Your task to perform on an android device: toggle javascript in the chrome app Image 0: 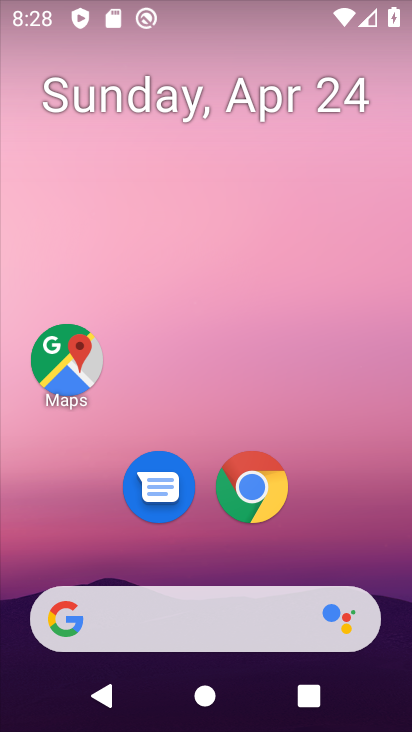
Step 0: click (239, 502)
Your task to perform on an android device: toggle javascript in the chrome app Image 1: 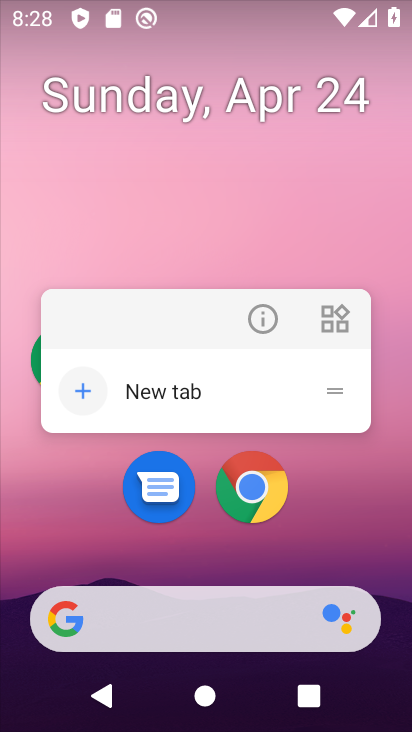
Step 1: click (256, 496)
Your task to perform on an android device: toggle javascript in the chrome app Image 2: 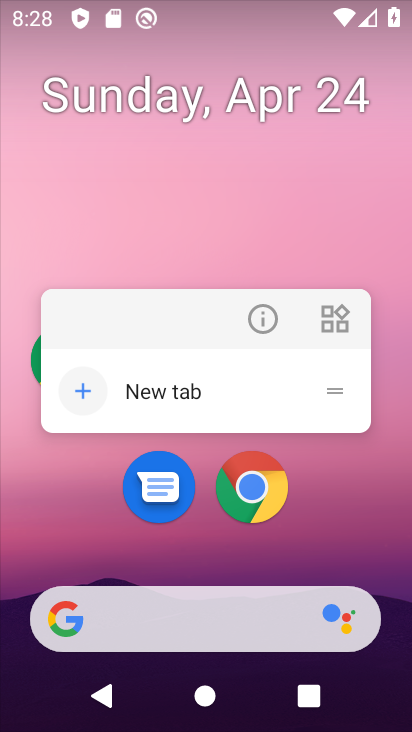
Step 2: click (267, 497)
Your task to perform on an android device: toggle javascript in the chrome app Image 3: 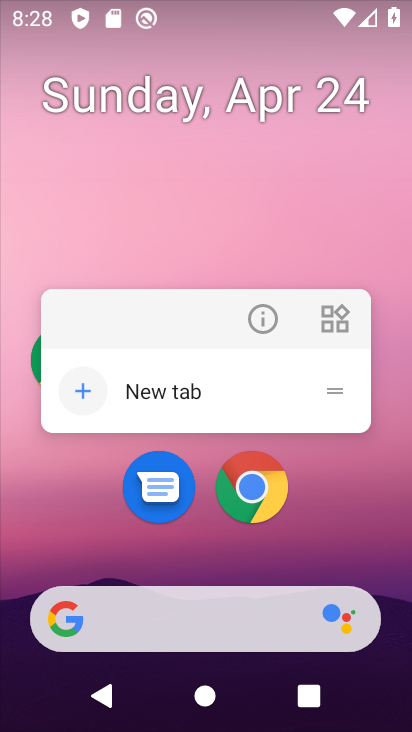
Step 3: click (267, 497)
Your task to perform on an android device: toggle javascript in the chrome app Image 4: 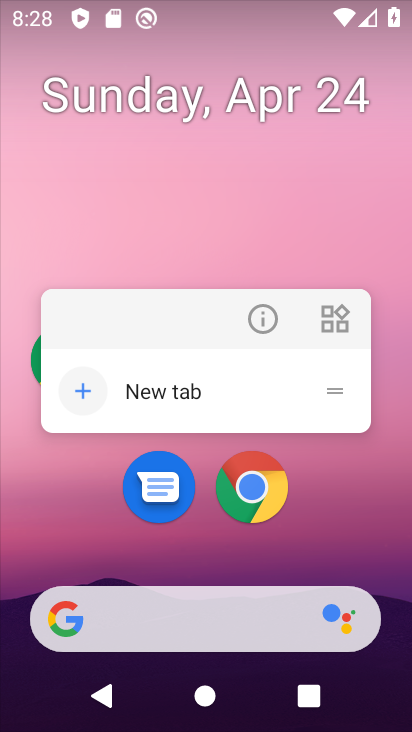
Step 4: click (267, 497)
Your task to perform on an android device: toggle javascript in the chrome app Image 5: 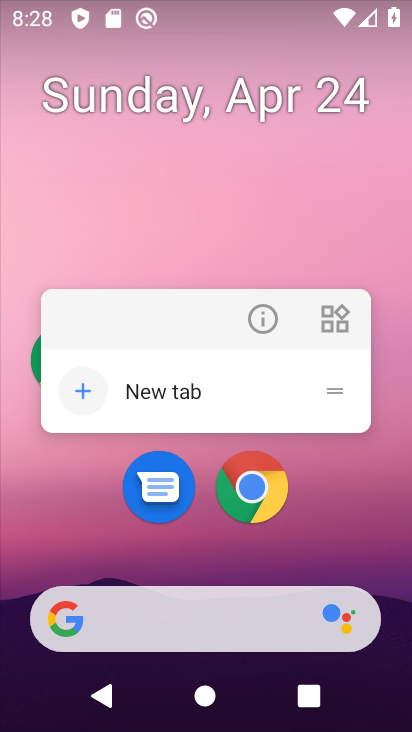
Step 5: click (256, 490)
Your task to perform on an android device: toggle javascript in the chrome app Image 6: 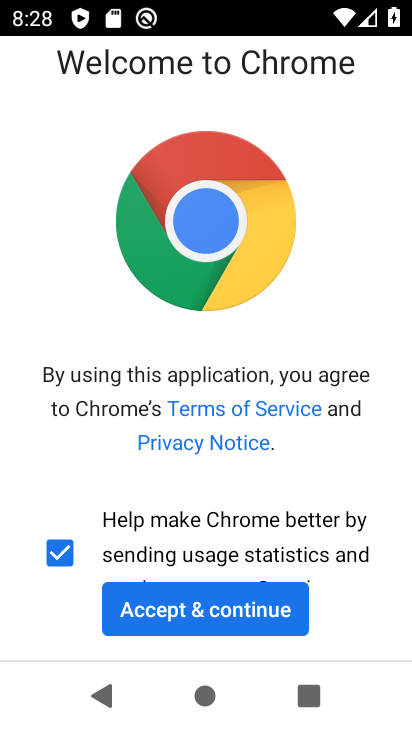
Step 6: click (215, 637)
Your task to perform on an android device: toggle javascript in the chrome app Image 7: 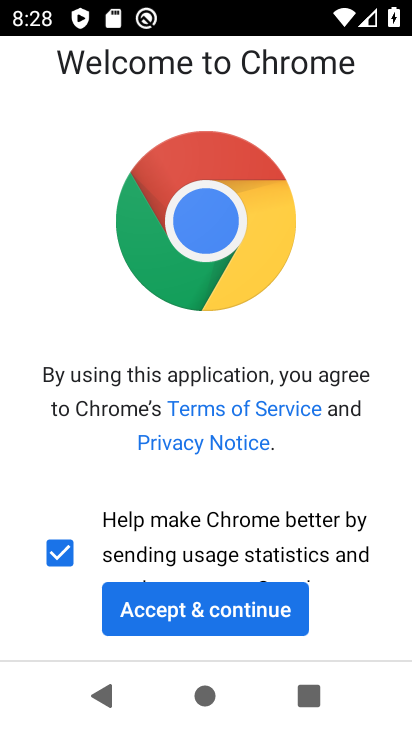
Step 7: click (202, 610)
Your task to perform on an android device: toggle javascript in the chrome app Image 8: 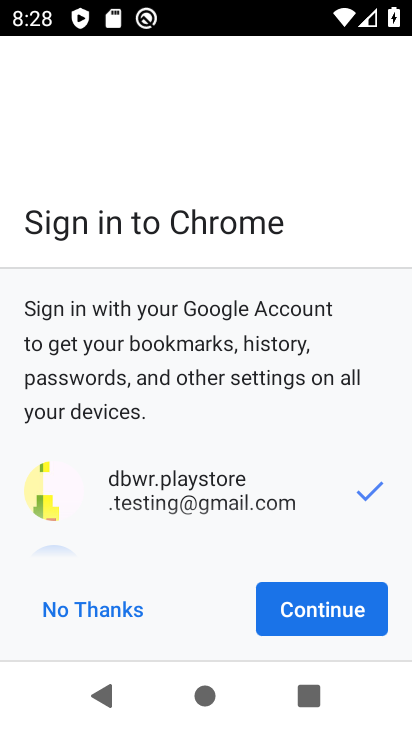
Step 8: click (321, 626)
Your task to perform on an android device: toggle javascript in the chrome app Image 9: 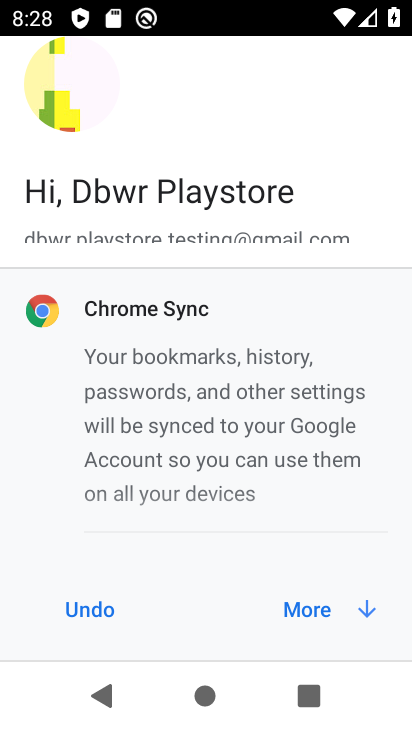
Step 9: click (317, 611)
Your task to perform on an android device: toggle javascript in the chrome app Image 10: 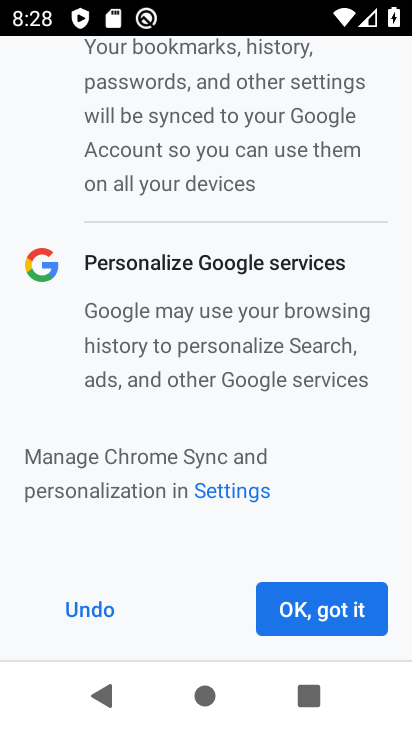
Step 10: click (317, 611)
Your task to perform on an android device: toggle javascript in the chrome app Image 11: 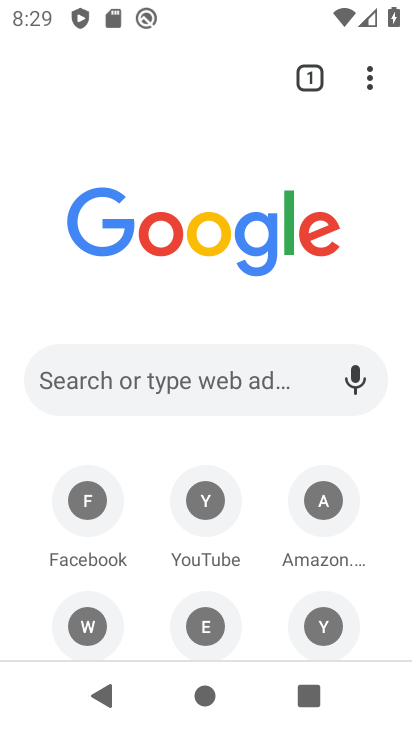
Step 11: drag from (372, 84) to (166, 546)
Your task to perform on an android device: toggle javascript in the chrome app Image 12: 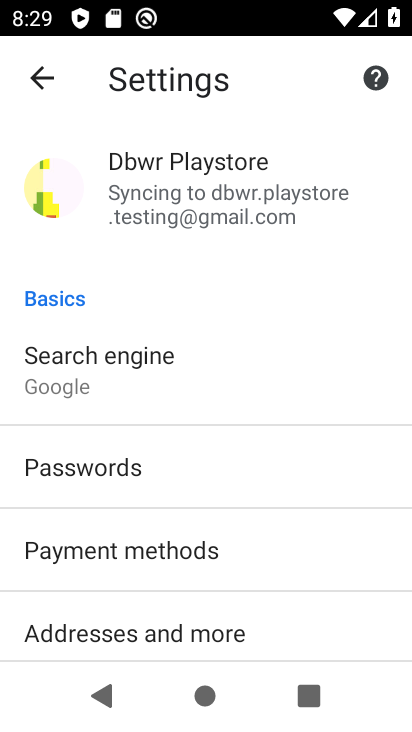
Step 12: drag from (228, 624) to (206, 286)
Your task to perform on an android device: toggle javascript in the chrome app Image 13: 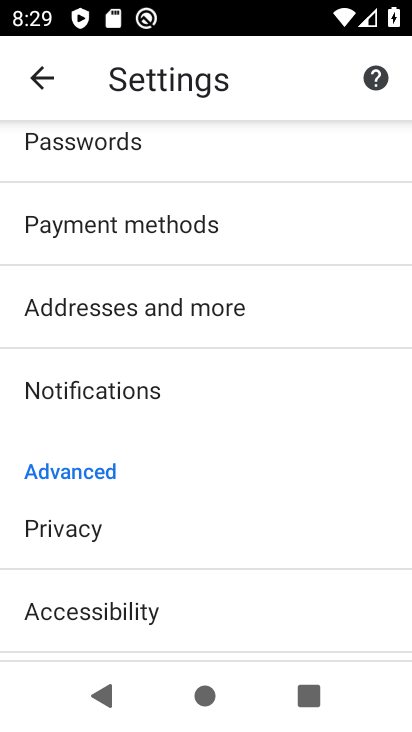
Step 13: drag from (241, 536) to (236, 323)
Your task to perform on an android device: toggle javascript in the chrome app Image 14: 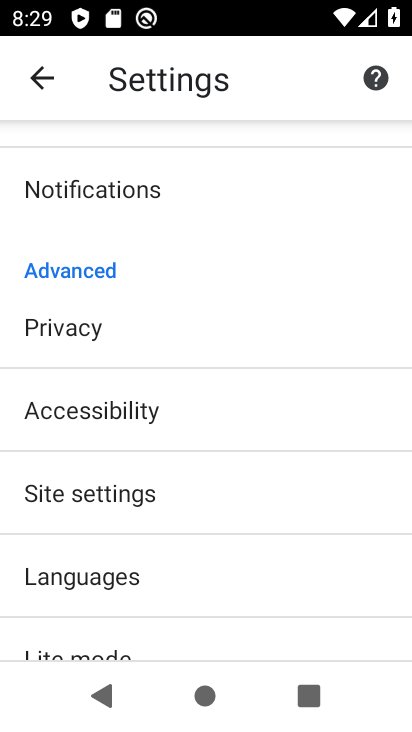
Step 14: click (152, 491)
Your task to perform on an android device: toggle javascript in the chrome app Image 15: 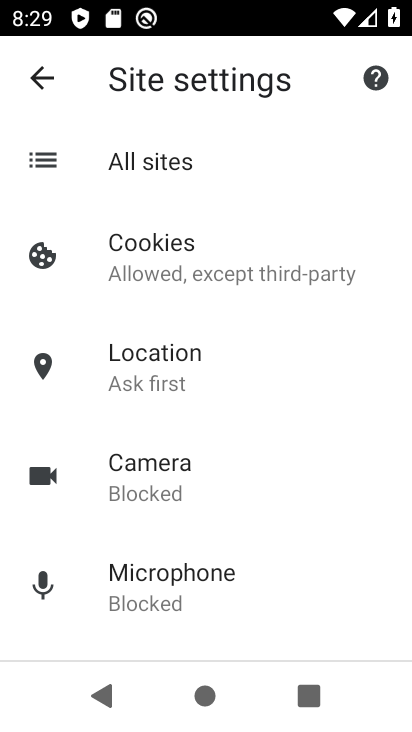
Step 15: drag from (315, 555) to (304, 112)
Your task to perform on an android device: toggle javascript in the chrome app Image 16: 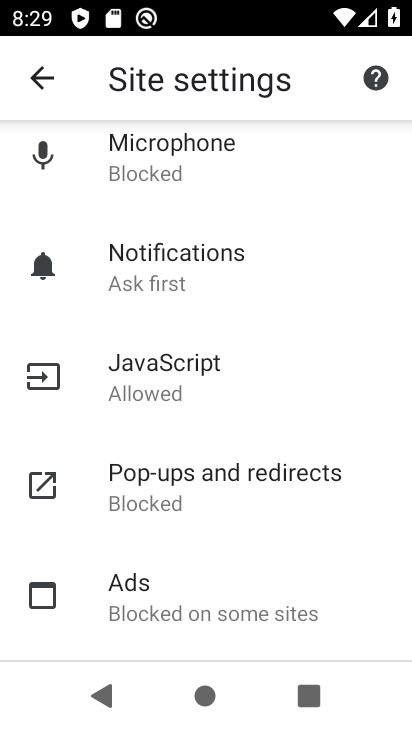
Step 16: click (157, 365)
Your task to perform on an android device: toggle javascript in the chrome app Image 17: 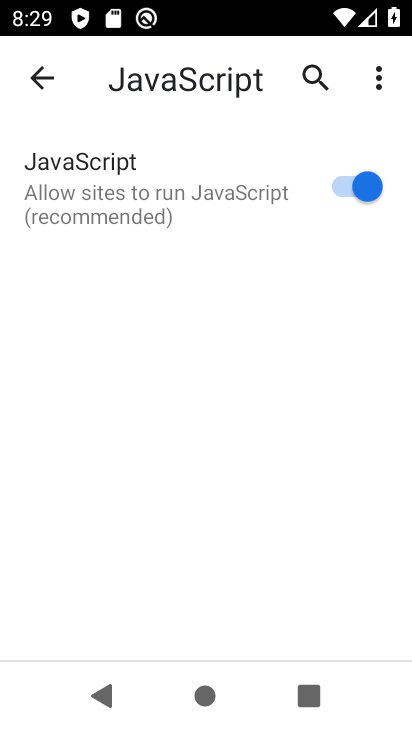
Step 17: click (370, 181)
Your task to perform on an android device: toggle javascript in the chrome app Image 18: 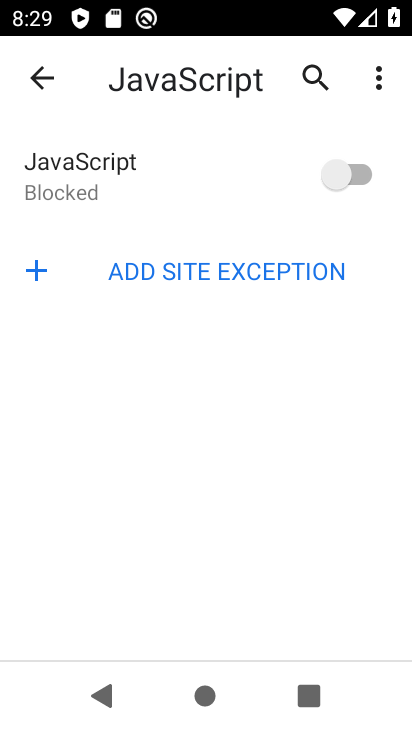
Step 18: task complete